Your task to perform on an android device: Is it going to rain tomorrow? Image 0: 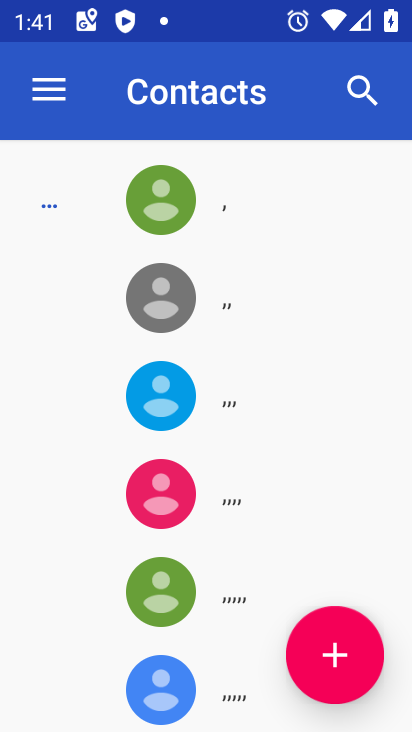
Step 0: press home button
Your task to perform on an android device: Is it going to rain tomorrow? Image 1: 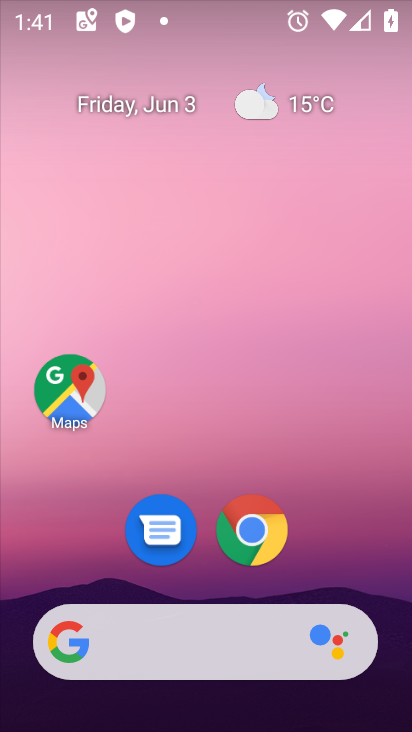
Step 1: click (179, 638)
Your task to perform on an android device: Is it going to rain tomorrow? Image 2: 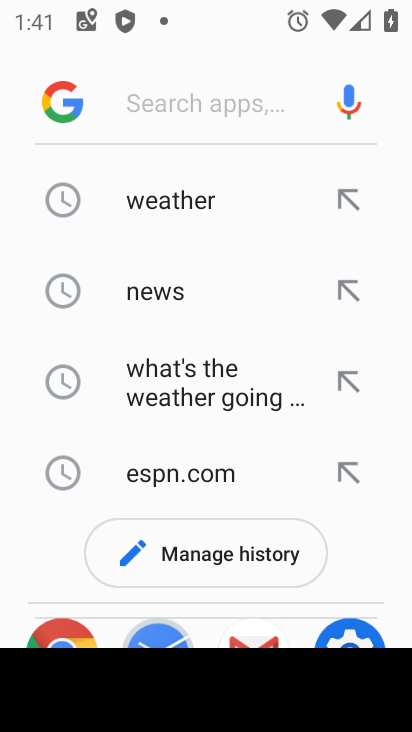
Step 2: type "Is it going to rain tomorrow?"
Your task to perform on an android device: Is it going to rain tomorrow? Image 3: 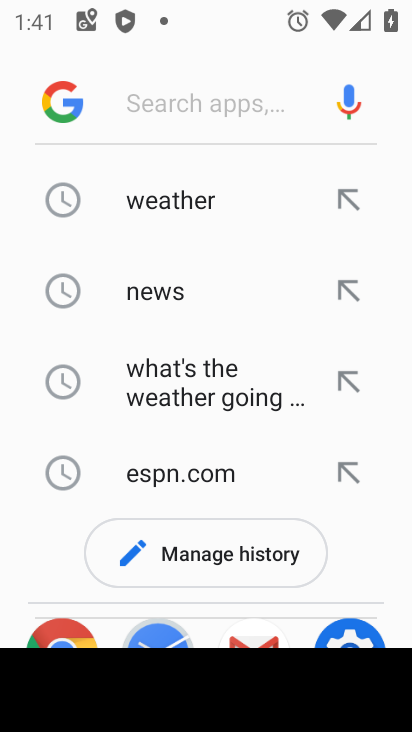
Step 3: click (151, 108)
Your task to perform on an android device: Is it going to rain tomorrow? Image 4: 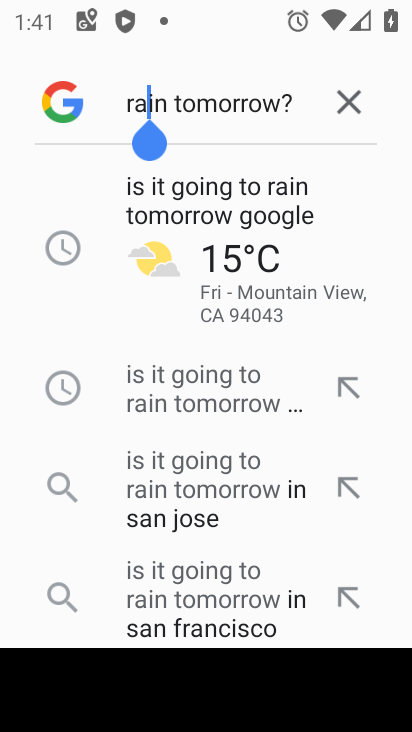
Step 4: click (178, 191)
Your task to perform on an android device: Is it going to rain tomorrow? Image 5: 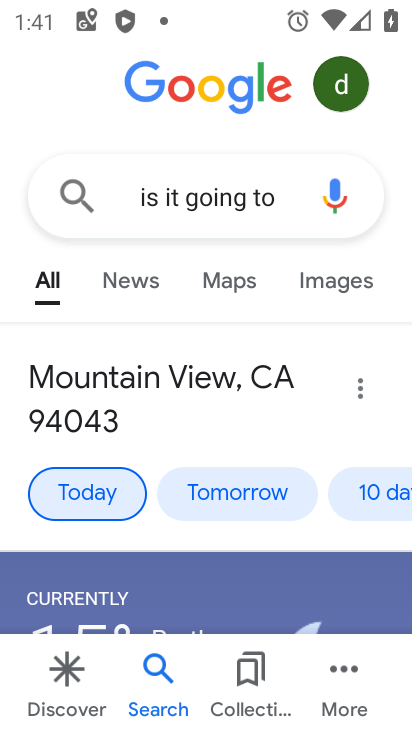
Step 5: task complete